Your task to perform on an android device: Open Yahoo.com Image 0: 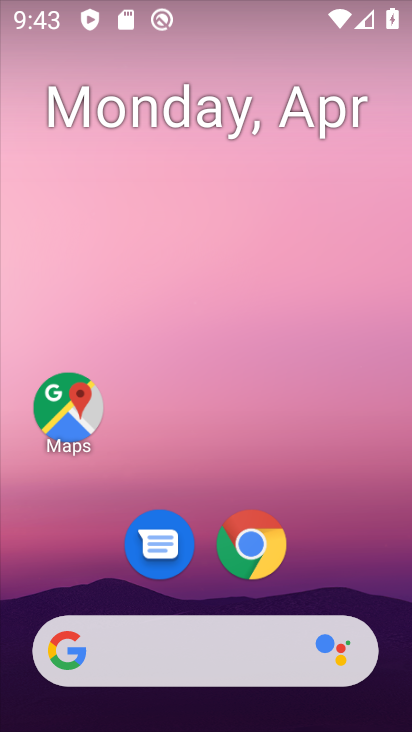
Step 0: drag from (287, 619) to (321, 254)
Your task to perform on an android device: Open Yahoo.com Image 1: 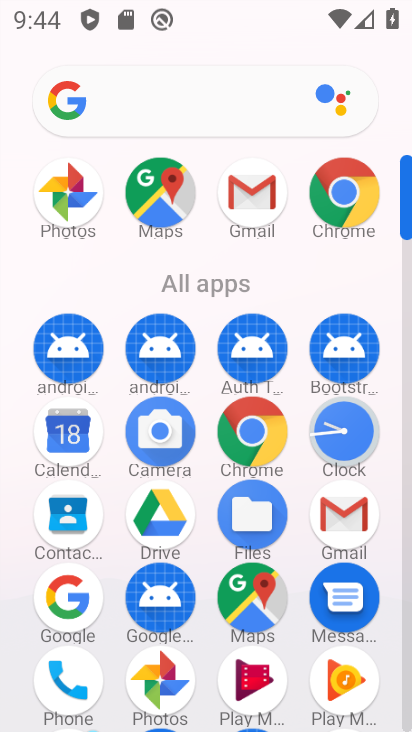
Step 1: click (341, 190)
Your task to perform on an android device: Open Yahoo.com Image 2: 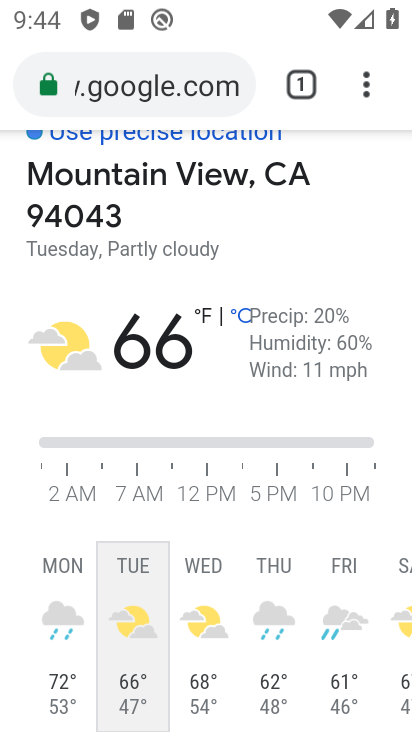
Step 2: click (371, 100)
Your task to perform on an android device: Open Yahoo.com Image 3: 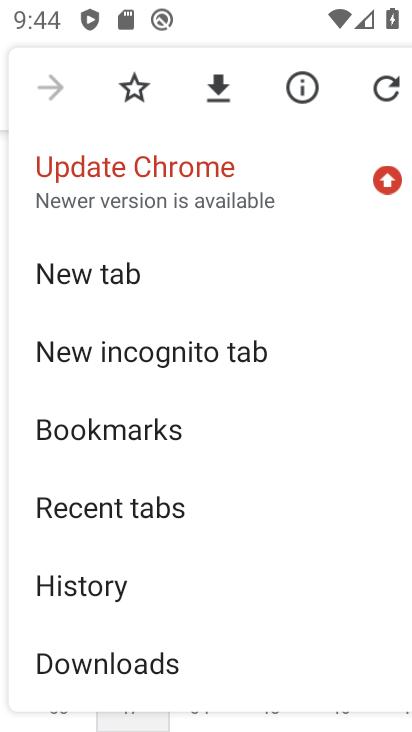
Step 3: click (123, 288)
Your task to perform on an android device: Open Yahoo.com Image 4: 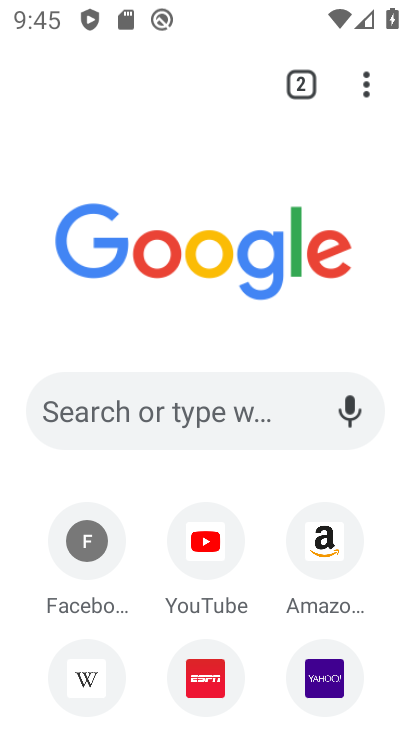
Step 4: click (327, 661)
Your task to perform on an android device: Open Yahoo.com Image 5: 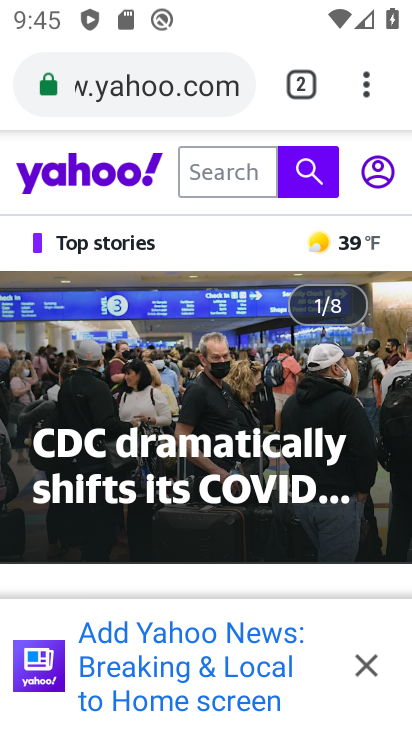
Step 5: task complete